Your task to perform on an android device: clear history in the chrome app Image 0: 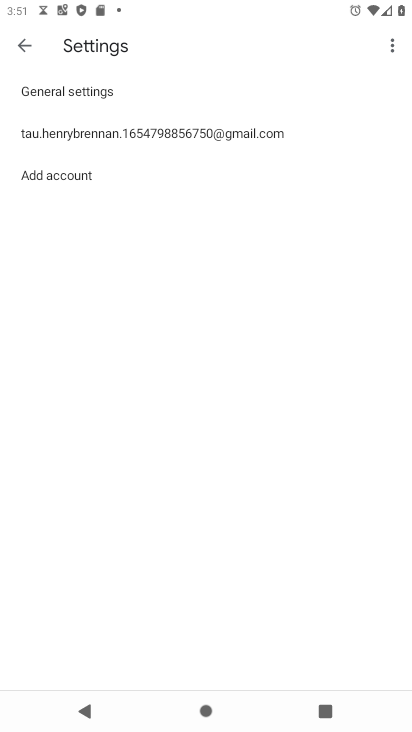
Step 0: press home button
Your task to perform on an android device: clear history in the chrome app Image 1: 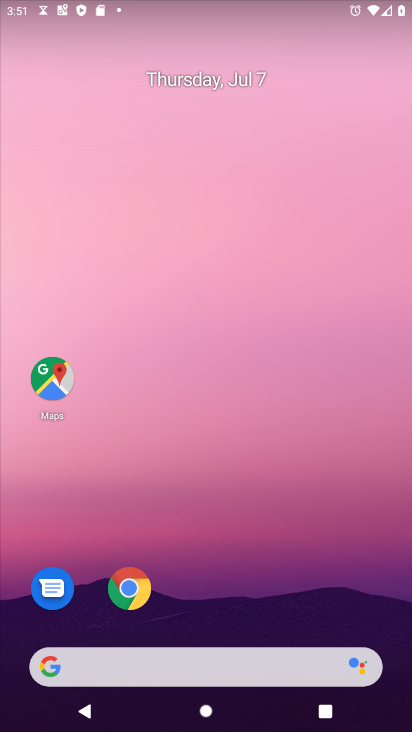
Step 1: drag from (238, 595) to (255, 196)
Your task to perform on an android device: clear history in the chrome app Image 2: 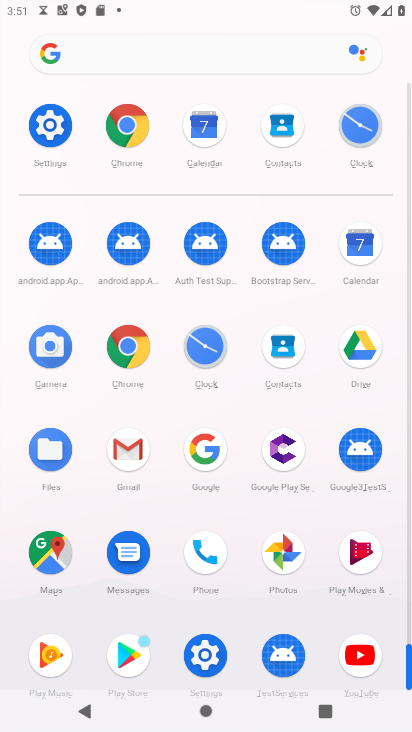
Step 2: click (128, 128)
Your task to perform on an android device: clear history in the chrome app Image 3: 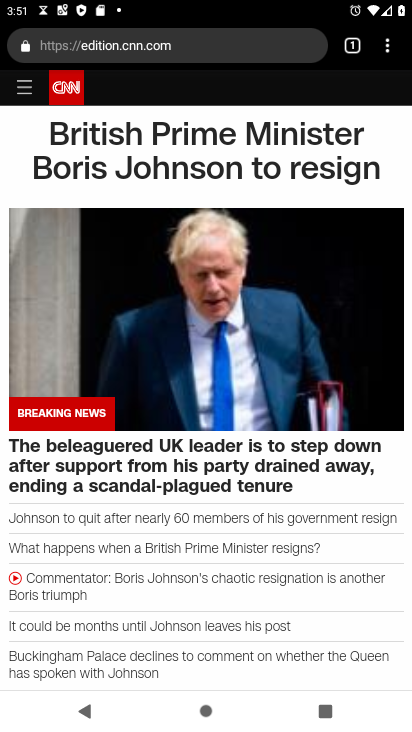
Step 3: click (390, 51)
Your task to perform on an android device: clear history in the chrome app Image 4: 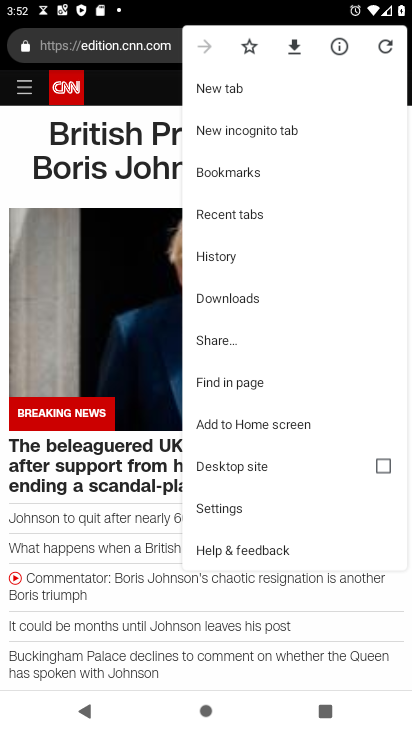
Step 4: click (223, 256)
Your task to perform on an android device: clear history in the chrome app Image 5: 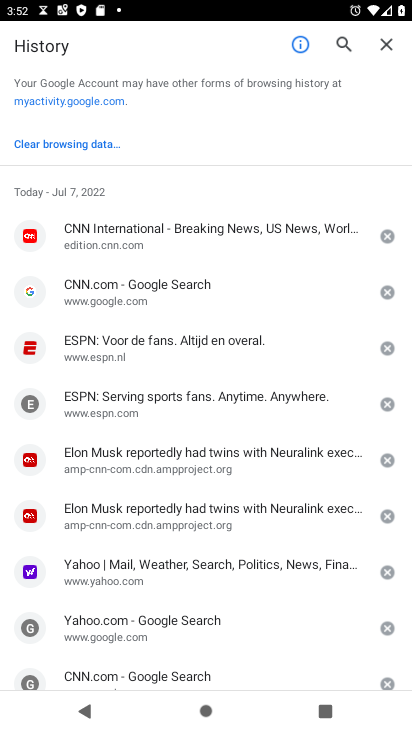
Step 5: click (109, 140)
Your task to perform on an android device: clear history in the chrome app Image 6: 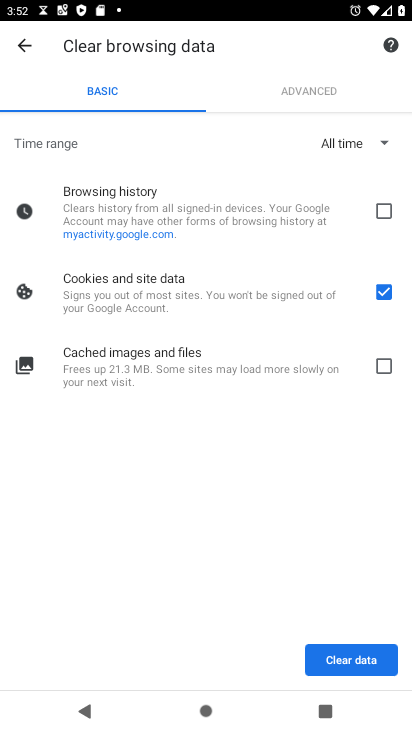
Step 6: click (383, 206)
Your task to perform on an android device: clear history in the chrome app Image 7: 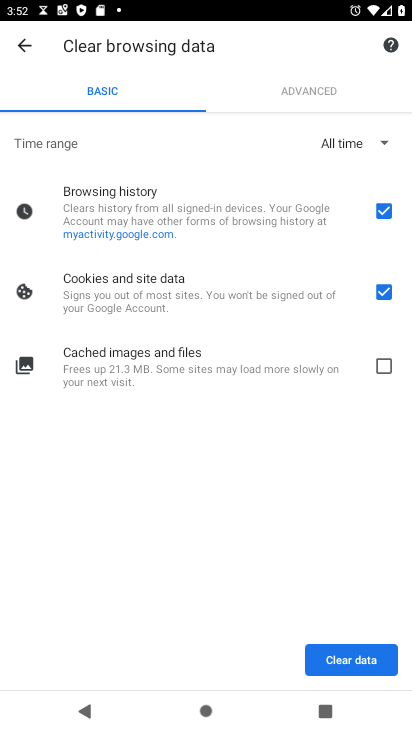
Step 7: click (387, 354)
Your task to perform on an android device: clear history in the chrome app Image 8: 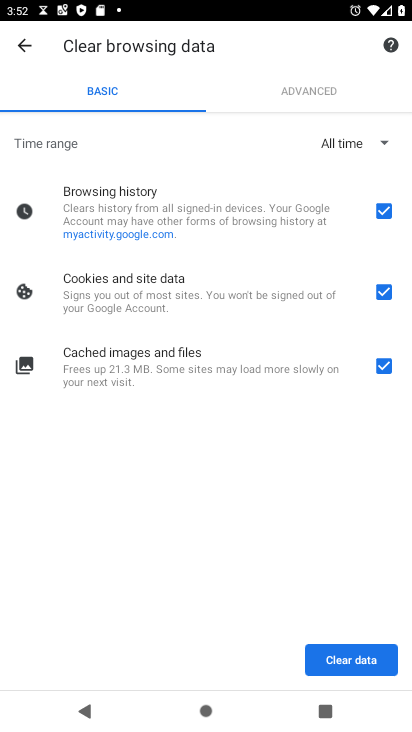
Step 8: click (360, 658)
Your task to perform on an android device: clear history in the chrome app Image 9: 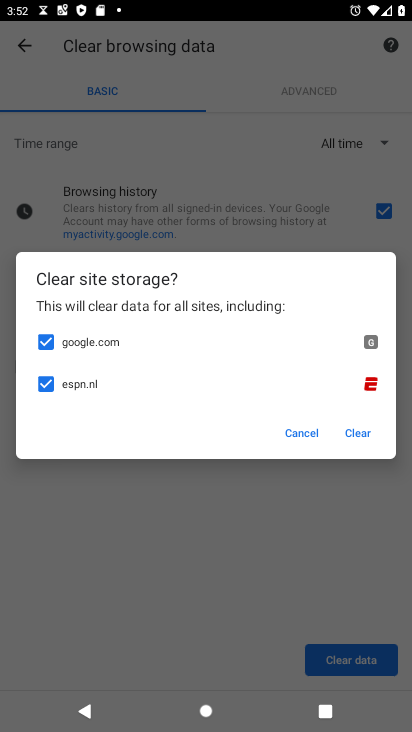
Step 9: click (361, 430)
Your task to perform on an android device: clear history in the chrome app Image 10: 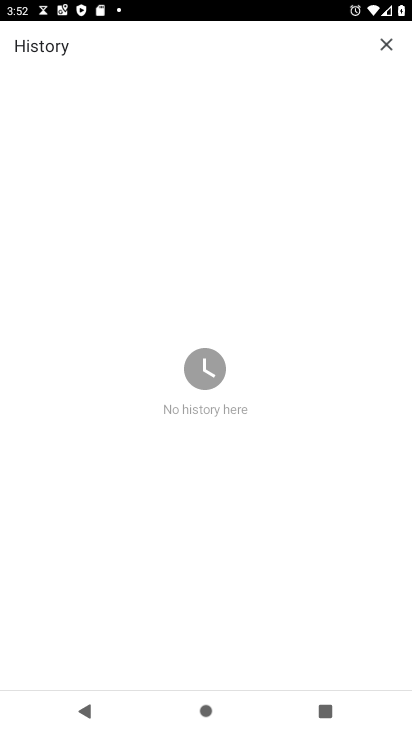
Step 10: task complete